Your task to perform on an android device: Search for seafood restaurants on Google Maps Image 0: 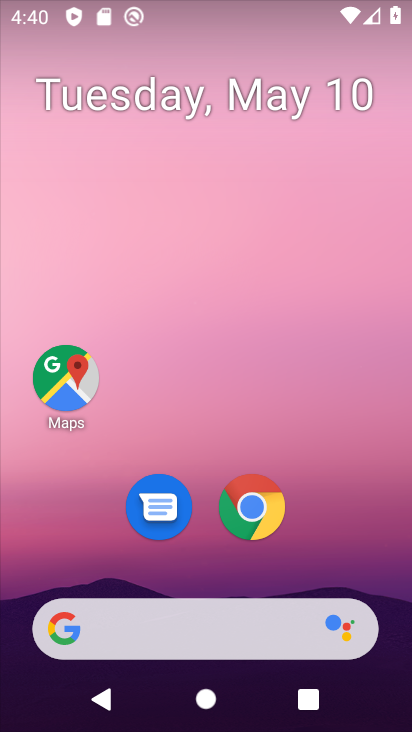
Step 0: drag from (214, 578) to (241, 115)
Your task to perform on an android device: Search for seafood restaurants on Google Maps Image 1: 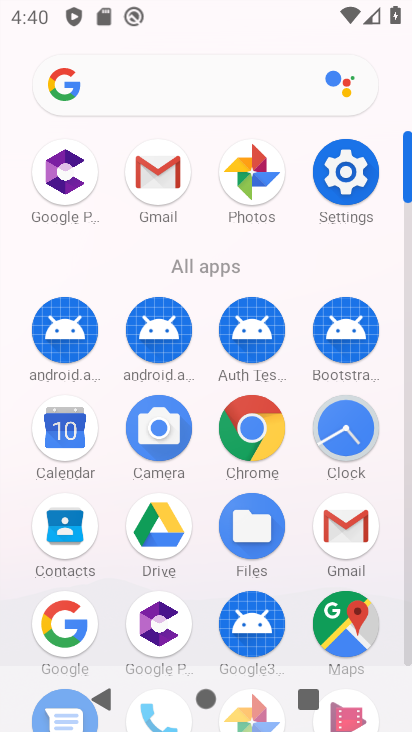
Step 1: click (340, 613)
Your task to perform on an android device: Search for seafood restaurants on Google Maps Image 2: 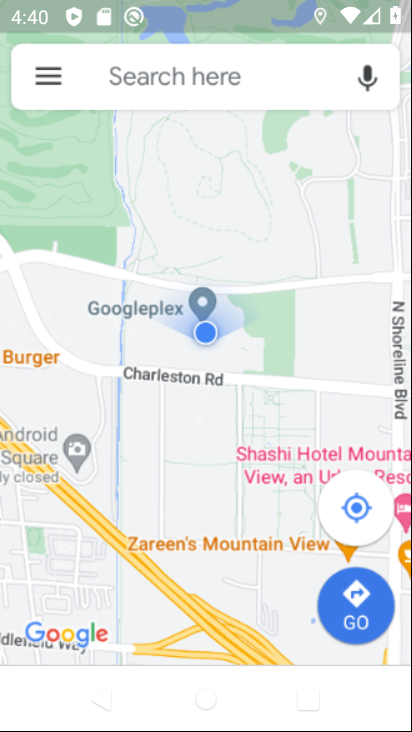
Step 2: click (168, 77)
Your task to perform on an android device: Search for seafood restaurants on Google Maps Image 3: 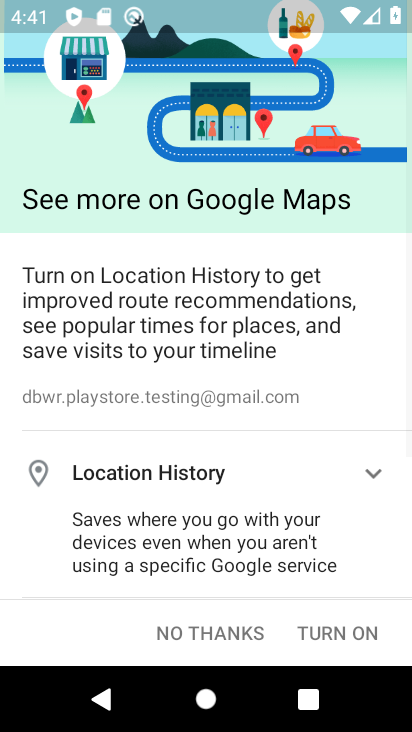
Step 3: click (233, 638)
Your task to perform on an android device: Search for seafood restaurants on Google Maps Image 4: 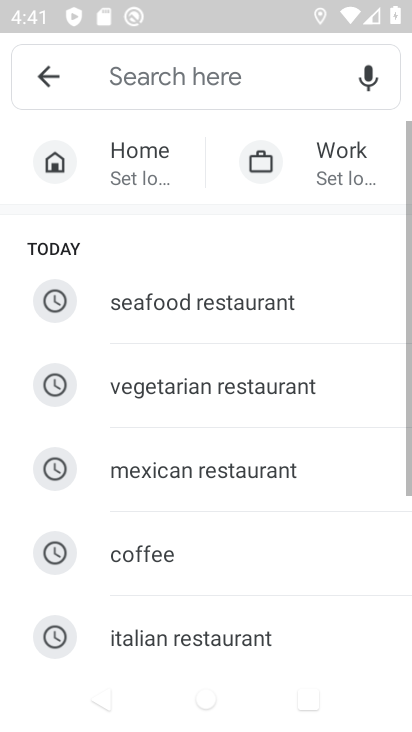
Step 4: click (177, 74)
Your task to perform on an android device: Search for seafood restaurants on Google Maps Image 5: 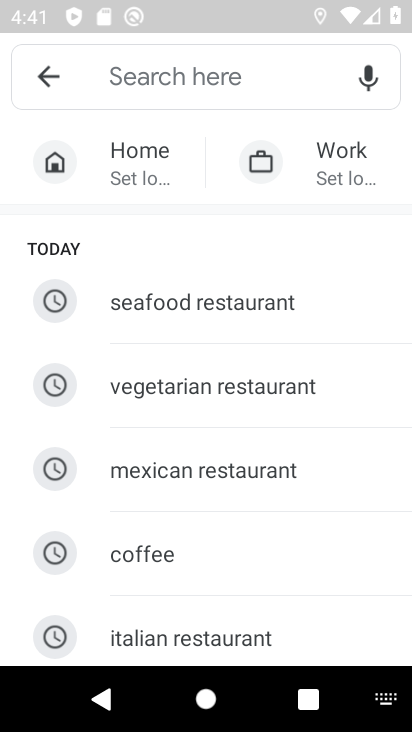
Step 5: type "seafood restaurants"
Your task to perform on an android device: Search for seafood restaurants on Google Maps Image 6: 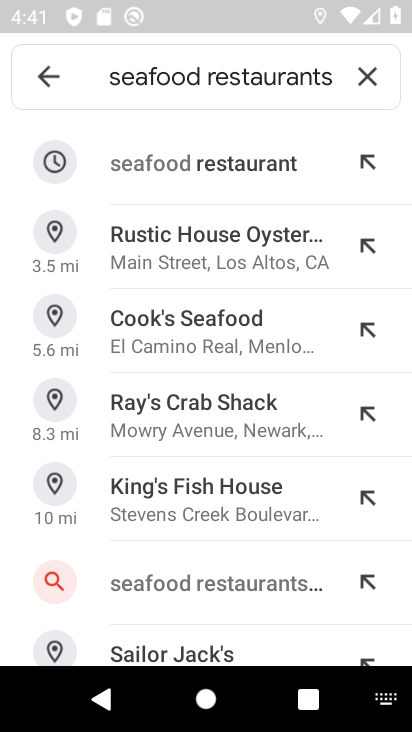
Step 6: click (225, 165)
Your task to perform on an android device: Search for seafood restaurants on Google Maps Image 7: 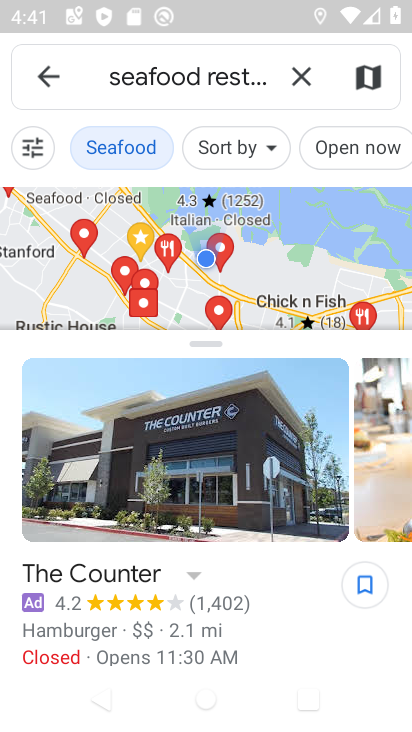
Step 7: task complete